Your task to perform on an android device: Open Chrome and go to the settings page Image 0: 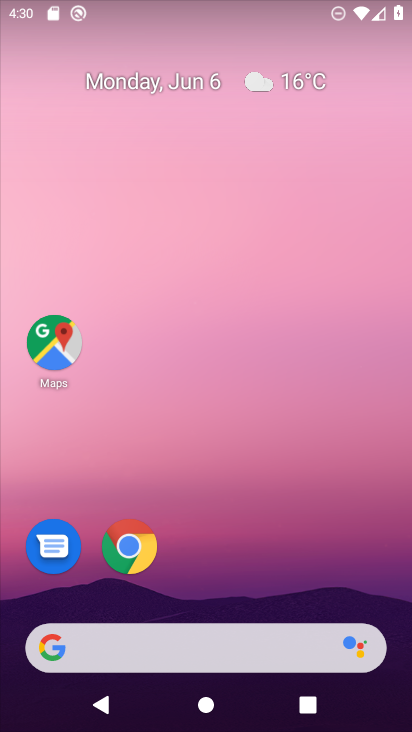
Step 0: drag from (222, 605) to (146, 110)
Your task to perform on an android device: Open Chrome and go to the settings page Image 1: 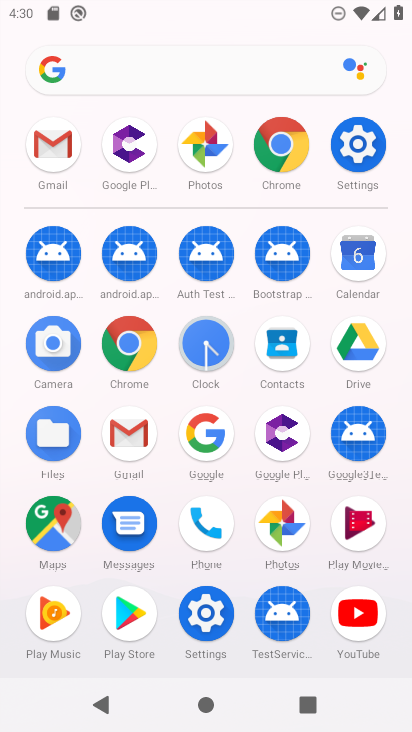
Step 1: click (129, 363)
Your task to perform on an android device: Open Chrome and go to the settings page Image 2: 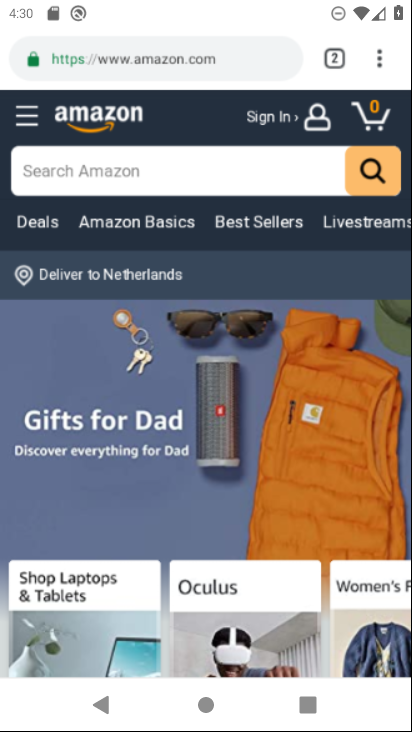
Step 2: click (379, 62)
Your task to perform on an android device: Open Chrome and go to the settings page Image 3: 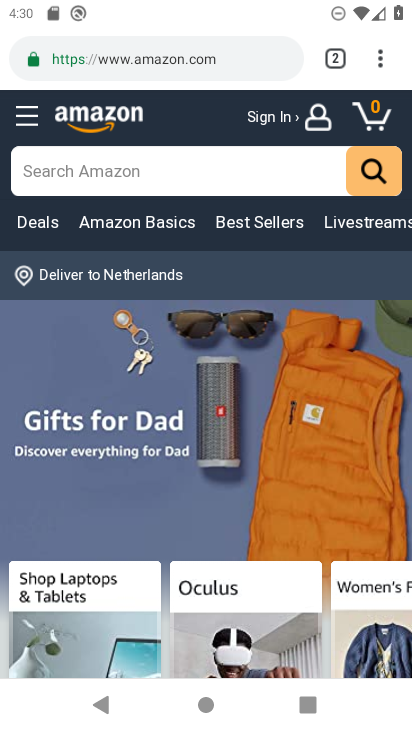
Step 3: task complete